Your task to perform on an android device: Open calendar and show me the first week of next month Image 0: 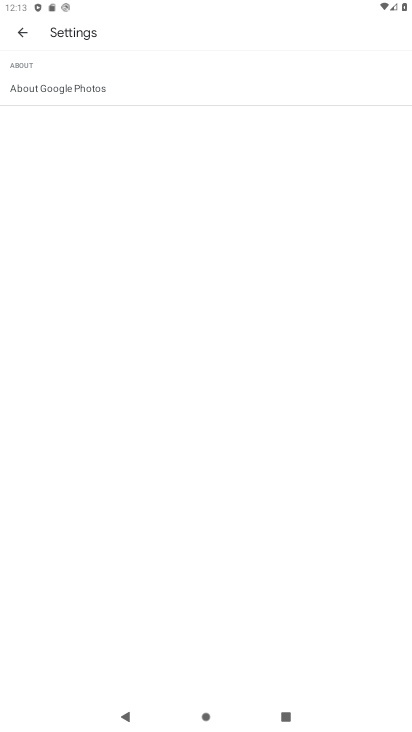
Step 0: press home button
Your task to perform on an android device: Open calendar and show me the first week of next month Image 1: 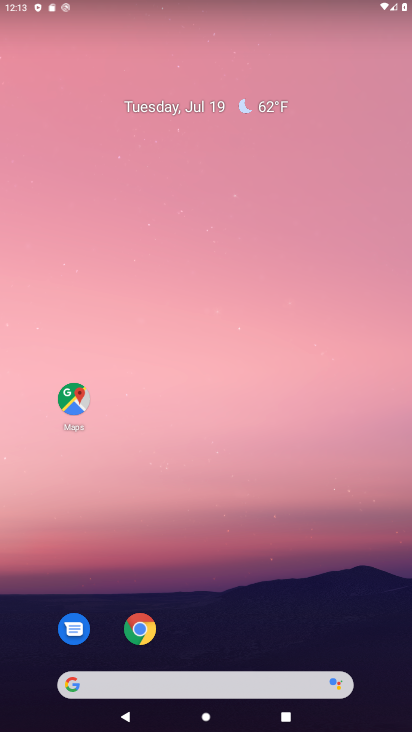
Step 1: drag from (212, 655) to (170, 136)
Your task to perform on an android device: Open calendar and show me the first week of next month Image 2: 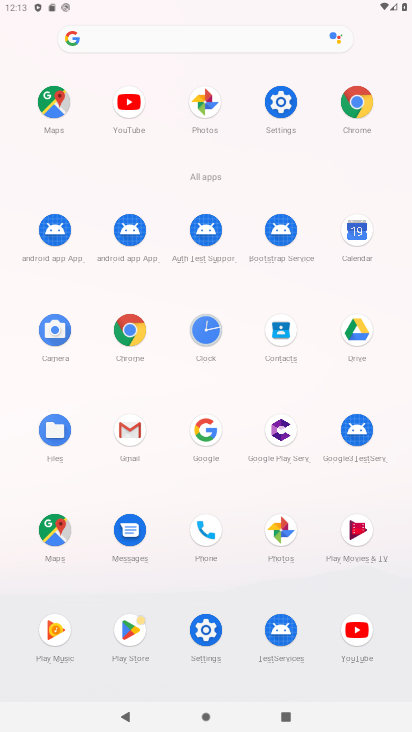
Step 2: click (351, 232)
Your task to perform on an android device: Open calendar and show me the first week of next month Image 3: 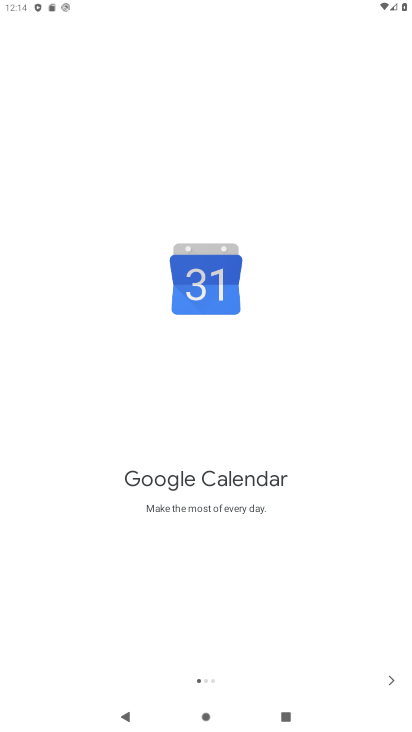
Step 3: click (380, 678)
Your task to perform on an android device: Open calendar and show me the first week of next month Image 4: 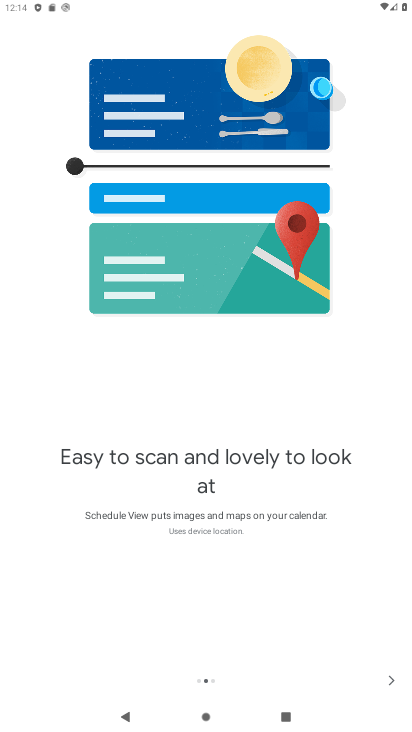
Step 4: click (380, 678)
Your task to perform on an android device: Open calendar and show me the first week of next month Image 5: 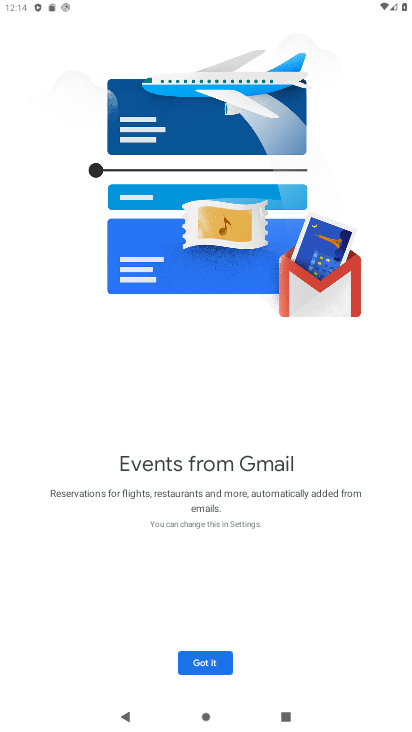
Step 5: click (199, 669)
Your task to perform on an android device: Open calendar and show me the first week of next month Image 6: 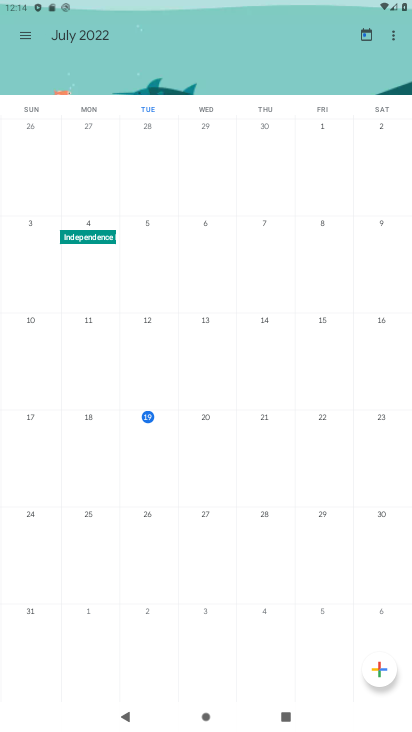
Step 6: click (21, 32)
Your task to perform on an android device: Open calendar and show me the first week of next month Image 7: 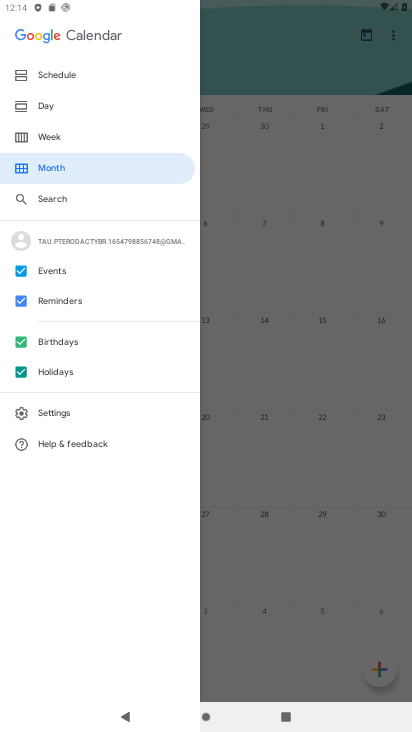
Step 7: click (54, 131)
Your task to perform on an android device: Open calendar and show me the first week of next month Image 8: 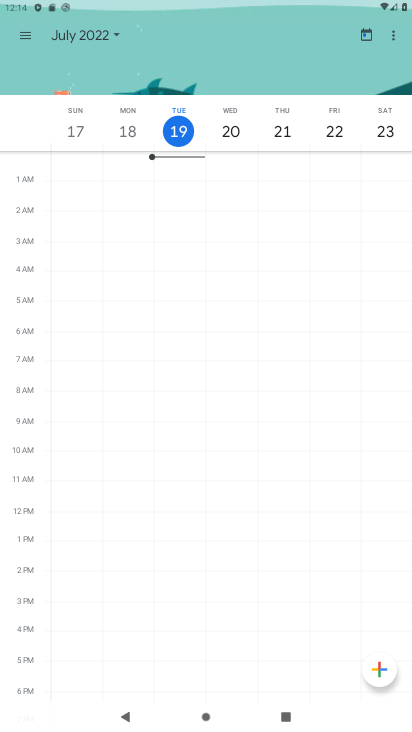
Step 8: task complete